Your task to perform on an android device: add a contact in the contacts app Image 0: 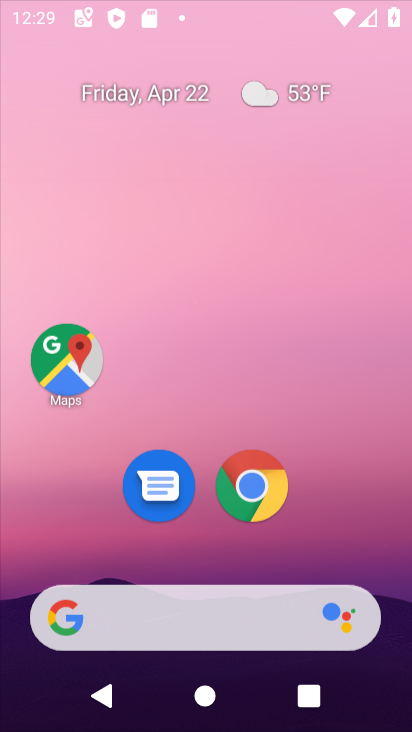
Step 0: click (385, 77)
Your task to perform on an android device: add a contact in the contacts app Image 1: 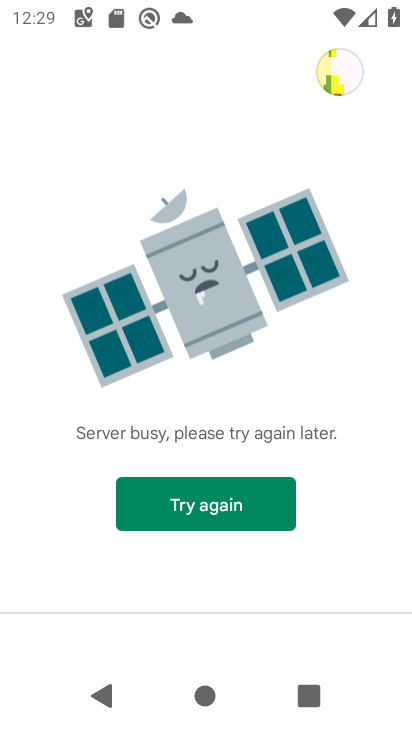
Step 1: press home button
Your task to perform on an android device: add a contact in the contacts app Image 2: 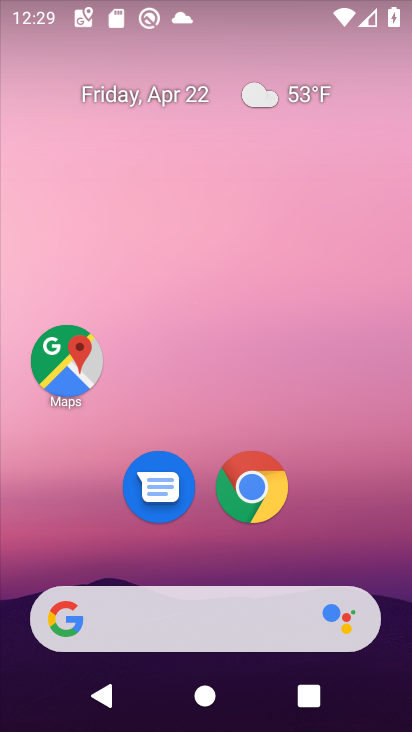
Step 2: drag from (374, 518) to (300, 81)
Your task to perform on an android device: add a contact in the contacts app Image 3: 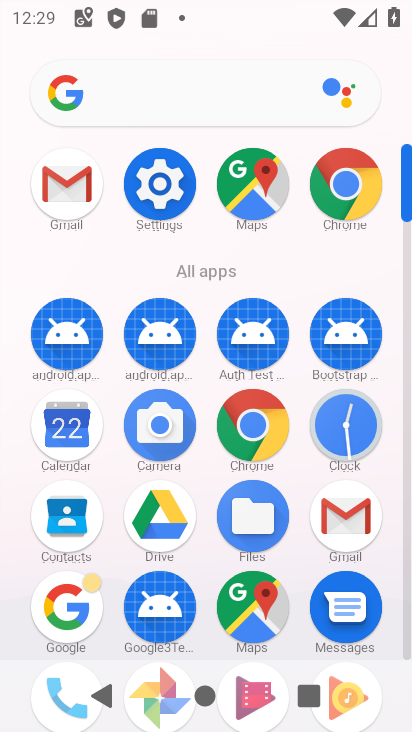
Step 3: click (85, 523)
Your task to perform on an android device: add a contact in the contacts app Image 4: 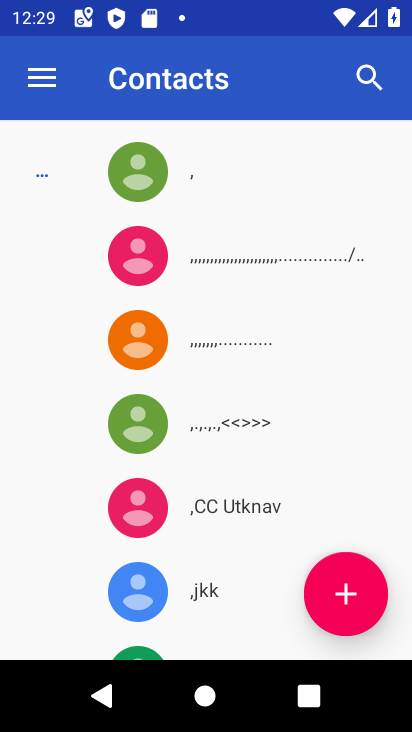
Step 4: click (342, 579)
Your task to perform on an android device: add a contact in the contacts app Image 5: 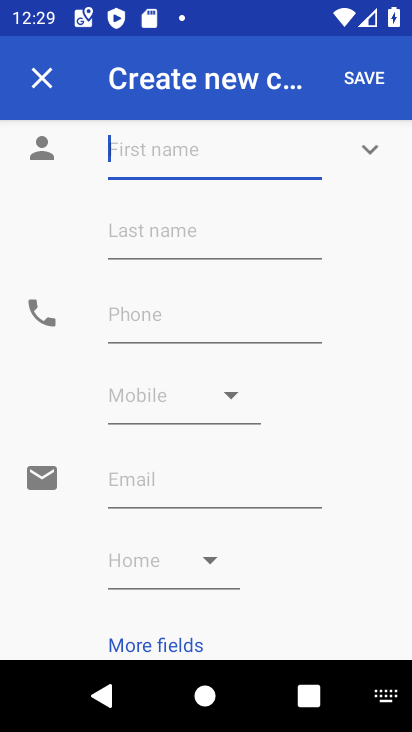
Step 5: type "mona"
Your task to perform on an android device: add a contact in the contacts app Image 6: 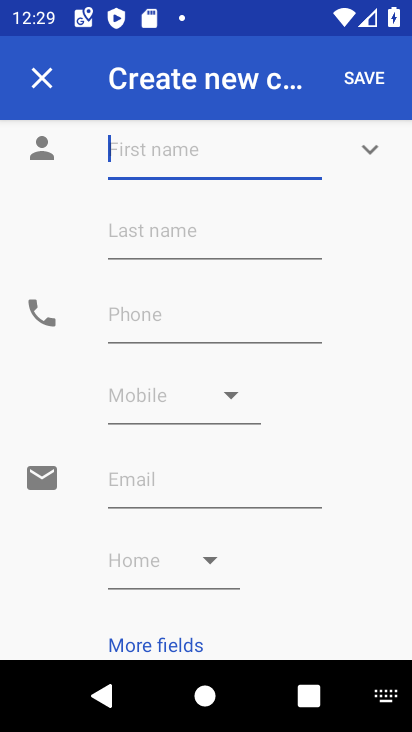
Step 6: click (144, 312)
Your task to perform on an android device: add a contact in the contacts app Image 7: 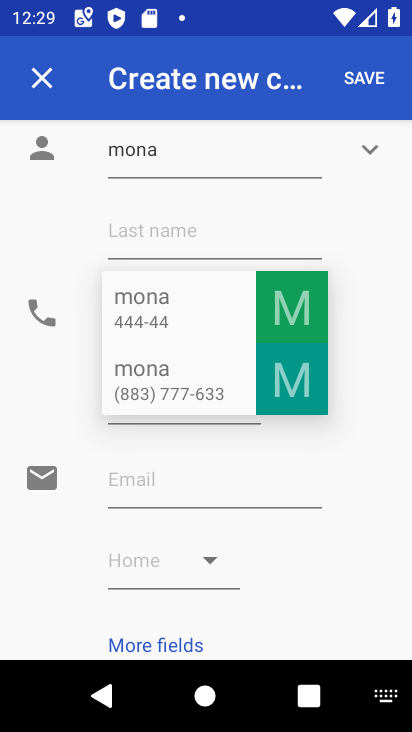
Step 7: type "7652525262"
Your task to perform on an android device: add a contact in the contacts app Image 8: 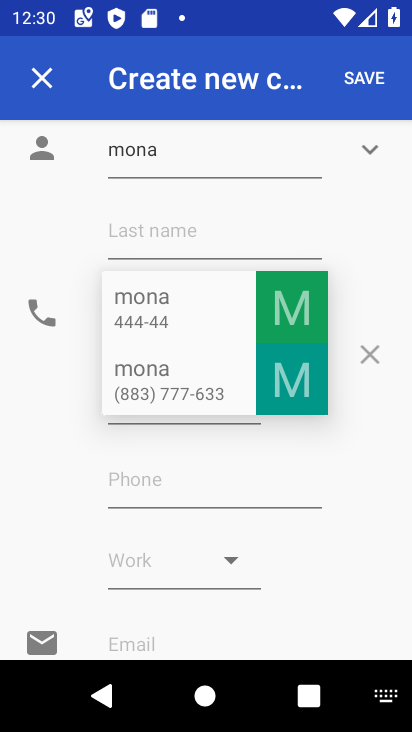
Step 8: click (190, 402)
Your task to perform on an android device: add a contact in the contacts app Image 9: 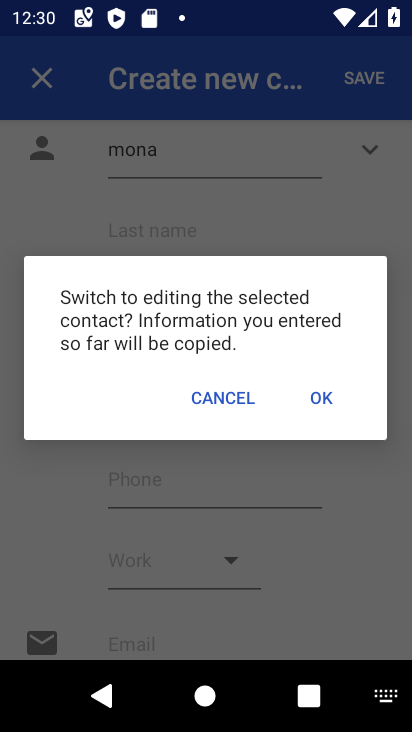
Step 9: click (212, 401)
Your task to perform on an android device: add a contact in the contacts app Image 10: 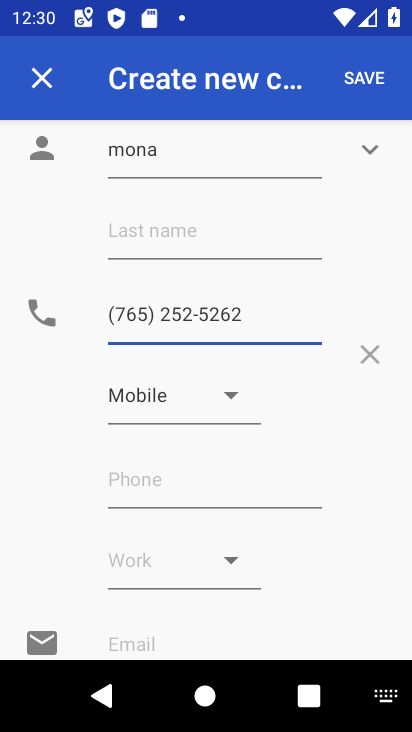
Step 10: click (389, 66)
Your task to perform on an android device: add a contact in the contacts app Image 11: 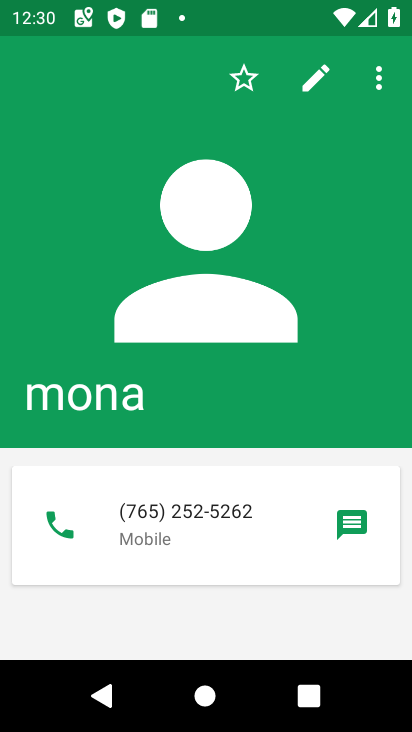
Step 11: task complete